Your task to perform on an android device: open app "Microsoft Authenticator" (install if not already installed) Image 0: 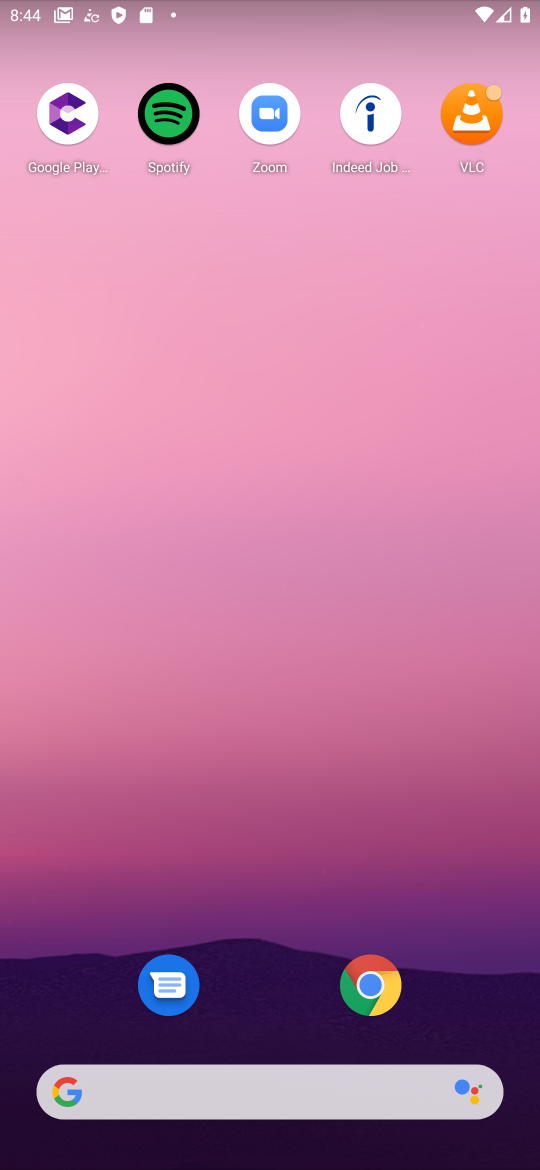
Step 0: drag from (247, 1004) to (262, 383)
Your task to perform on an android device: open app "Microsoft Authenticator" (install if not already installed) Image 1: 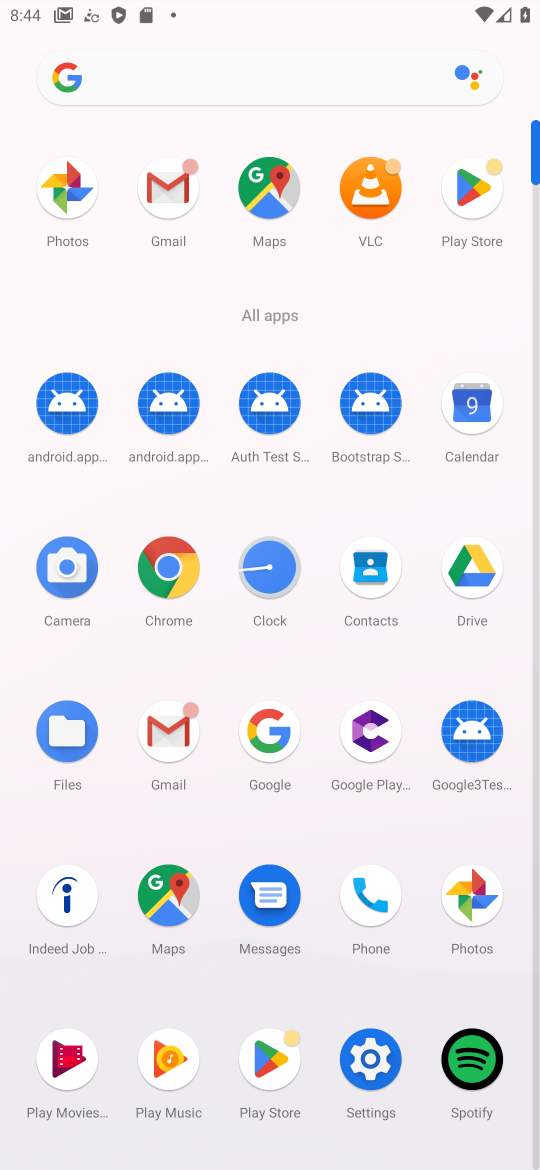
Step 1: click (279, 1080)
Your task to perform on an android device: open app "Microsoft Authenticator" (install if not already installed) Image 2: 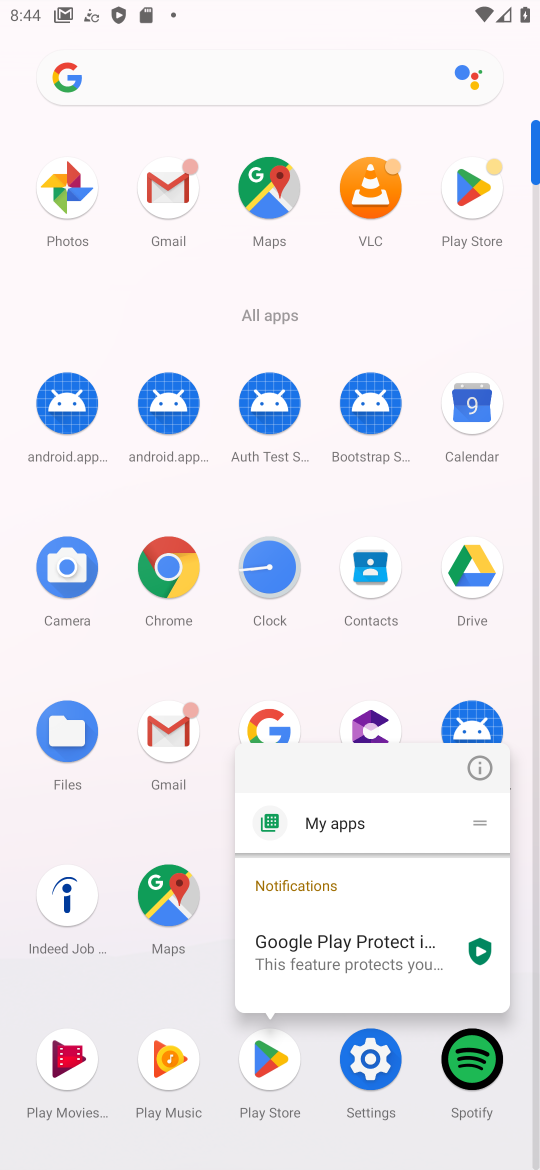
Step 2: click (279, 1062)
Your task to perform on an android device: open app "Microsoft Authenticator" (install if not already installed) Image 3: 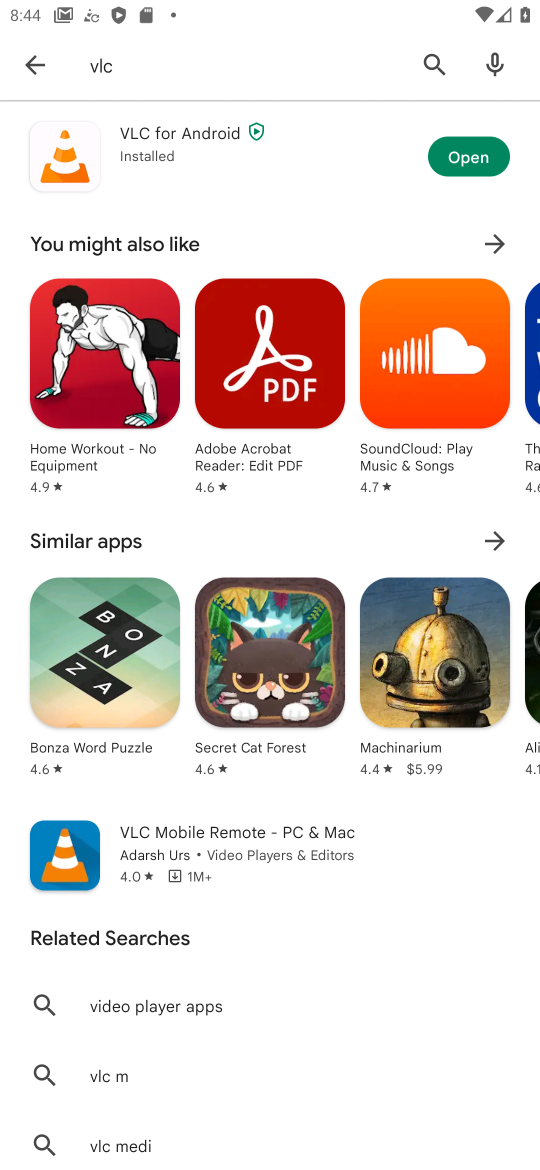
Step 3: click (160, 53)
Your task to perform on an android device: open app "Microsoft Authenticator" (install if not already installed) Image 4: 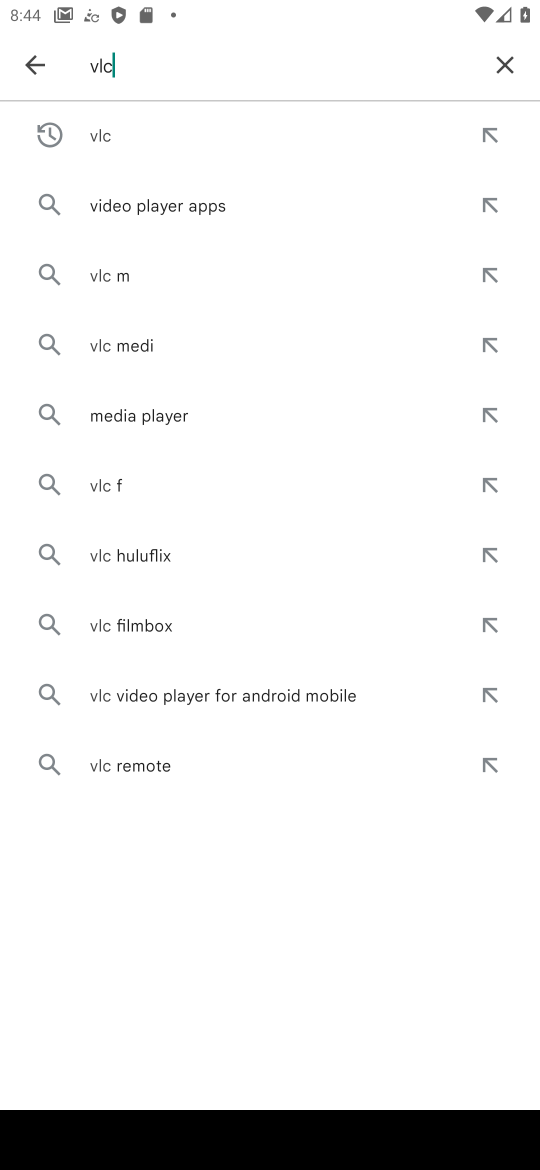
Step 4: click (498, 65)
Your task to perform on an android device: open app "Microsoft Authenticator" (install if not already installed) Image 5: 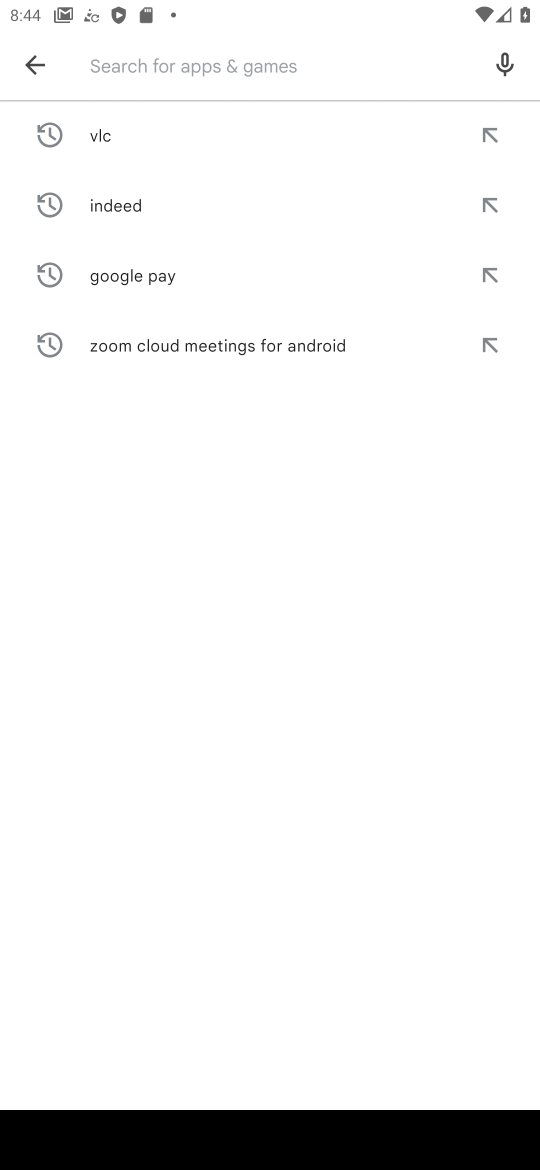
Step 5: type "microsoft Authenticator"
Your task to perform on an android device: open app "Microsoft Authenticator" (install if not already installed) Image 6: 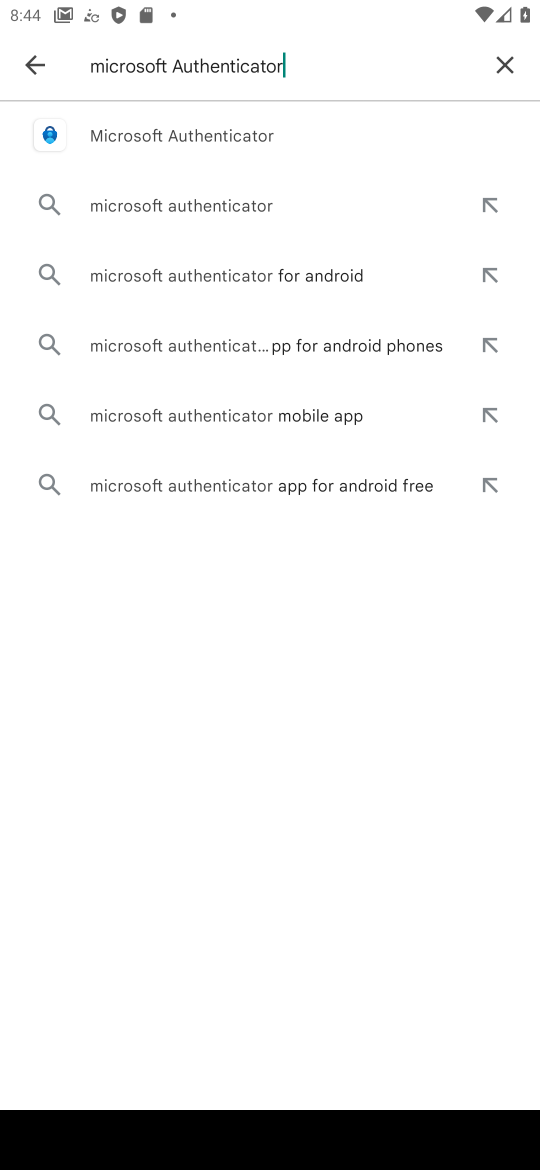
Step 6: click (262, 141)
Your task to perform on an android device: open app "Microsoft Authenticator" (install if not already installed) Image 7: 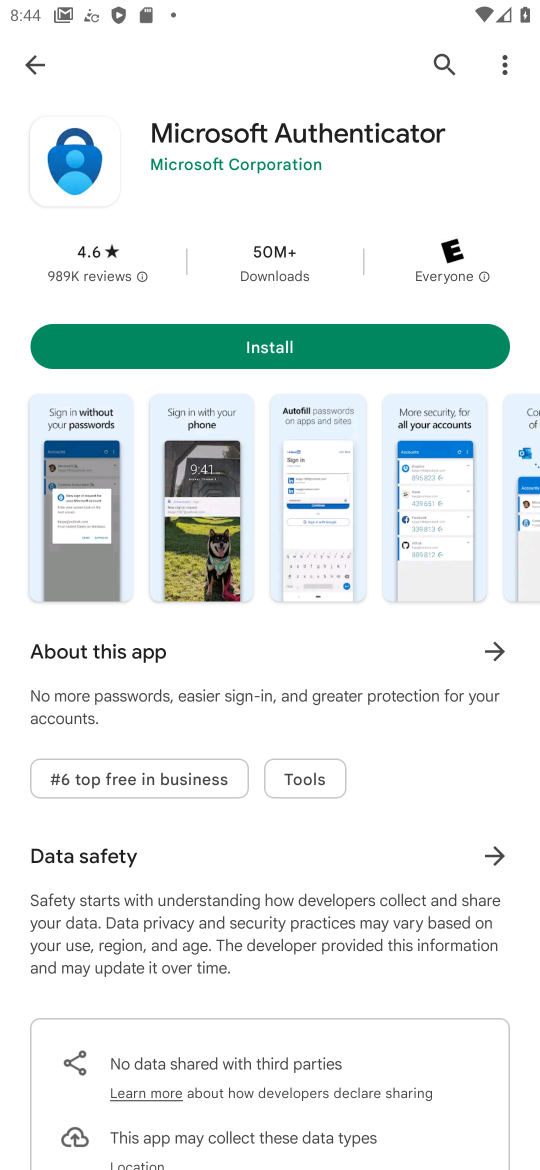
Step 7: click (258, 351)
Your task to perform on an android device: open app "Microsoft Authenticator" (install if not already installed) Image 8: 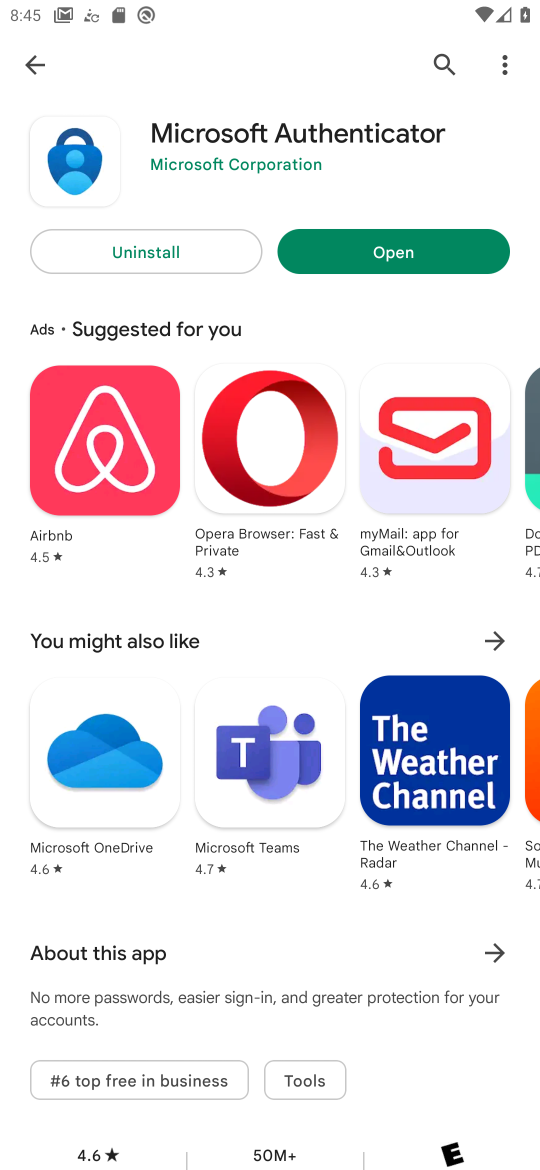
Step 8: click (419, 241)
Your task to perform on an android device: open app "Microsoft Authenticator" (install if not already installed) Image 9: 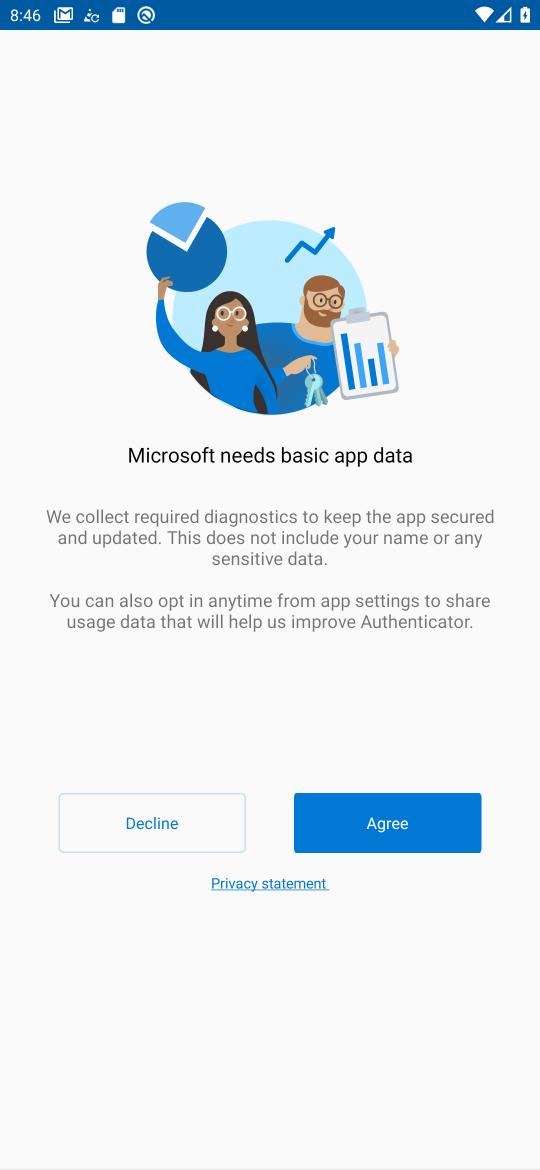
Step 9: click (405, 804)
Your task to perform on an android device: open app "Microsoft Authenticator" (install if not already installed) Image 10: 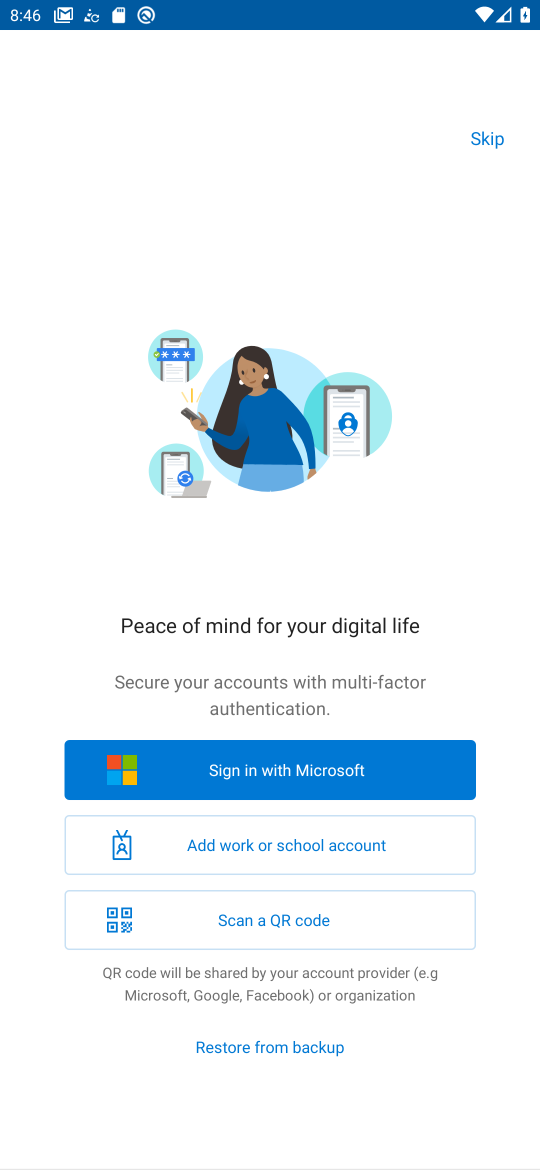
Step 10: click (486, 121)
Your task to perform on an android device: open app "Microsoft Authenticator" (install if not already installed) Image 11: 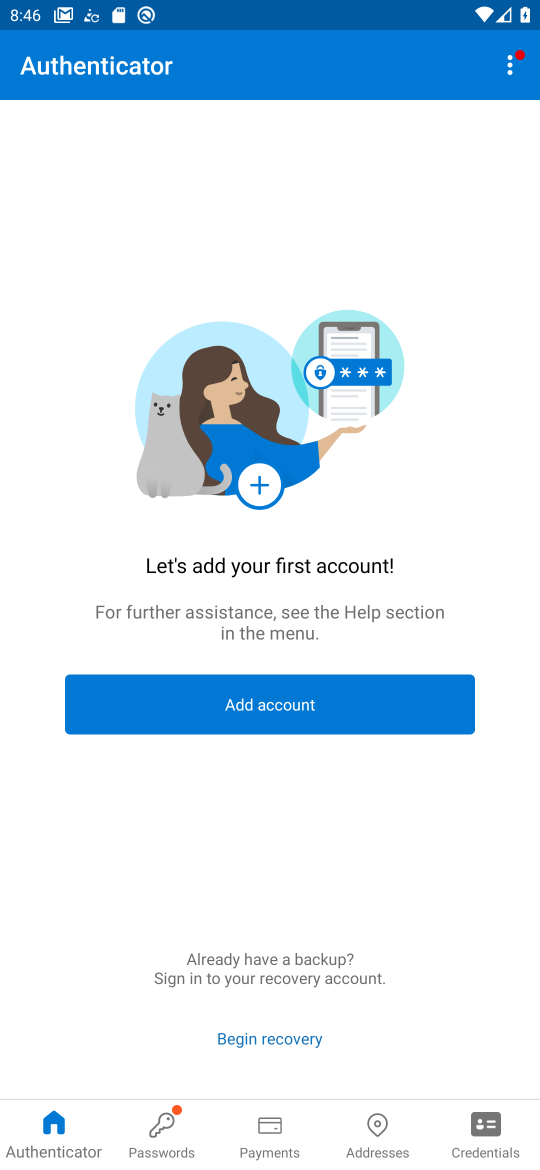
Step 11: task complete